Your task to perform on an android device: change alarm snooze length Image 0: 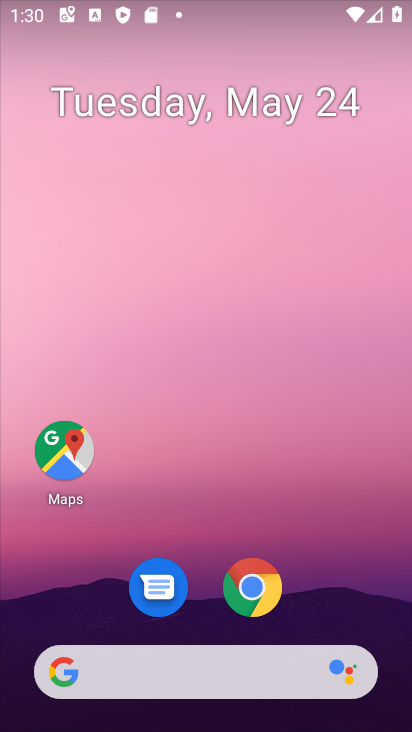
Step 0: drag from (152, 727) to (142, 39)
Your task to perform on an android device: change alarm snooze length Image 1: 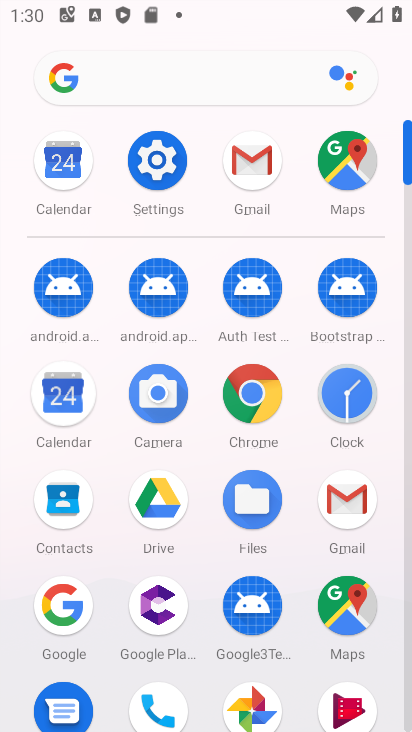
Step 1: click (347, 410)
Your task to perform on an android device: change alarm snooze length Image 2: 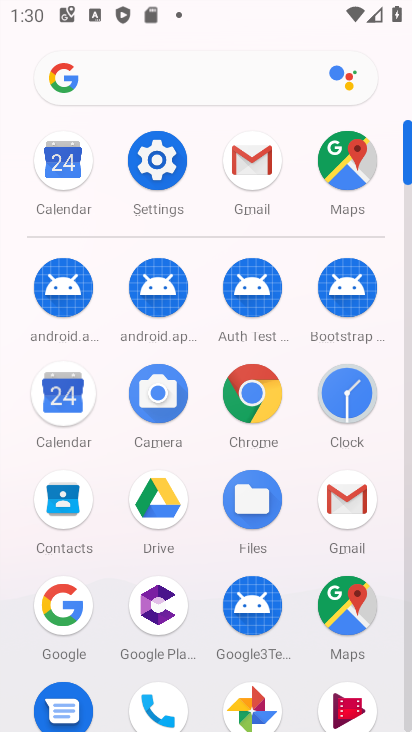
Step 2: click (347, 410)
Your task to perform on an android device: change alarm snooze length Image 3: 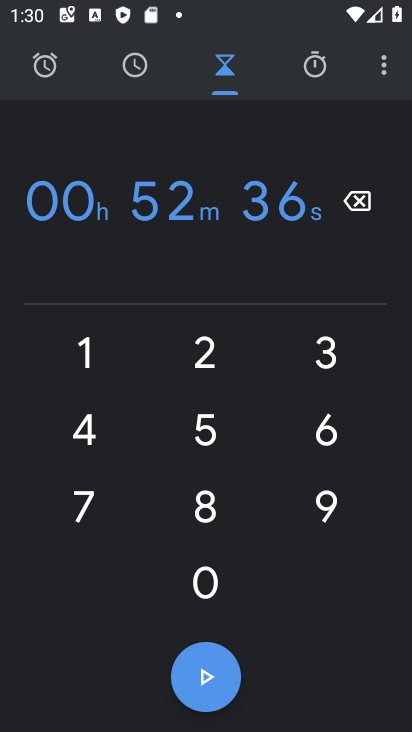
Step 3: click (393, 70)
Your task to perform on an android device: change alarm snooze length Image 4: 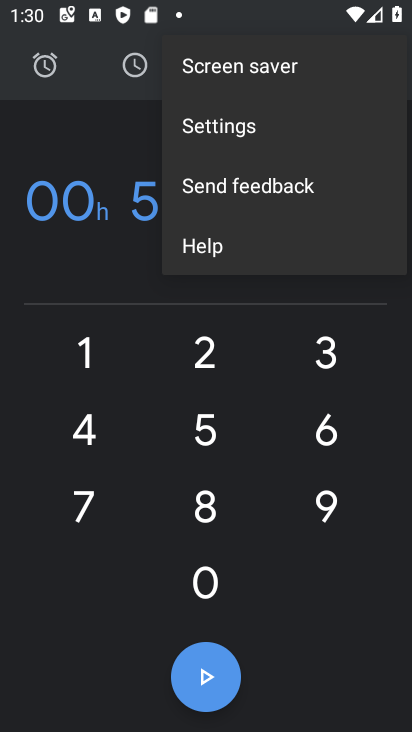
Step 4: click (315, 143)
Your task to perform on an android device: change alarm snooze length Image 5: 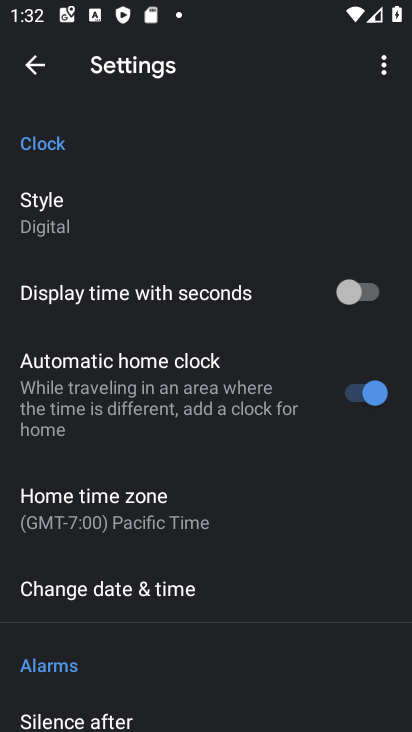
Step 5: drag from (145, 603) to (119, 76)
Your task to perform on an android device: change alarm snooze length Image 6: 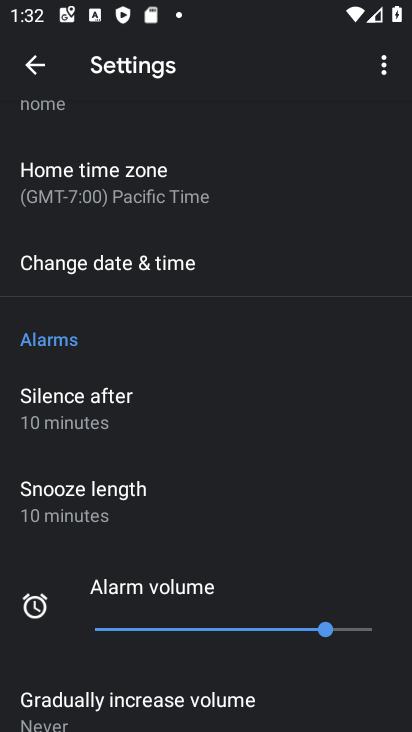
Step 6: click (122, 486)
Your task to perform on an android device: change alarm snooze length Image 7: 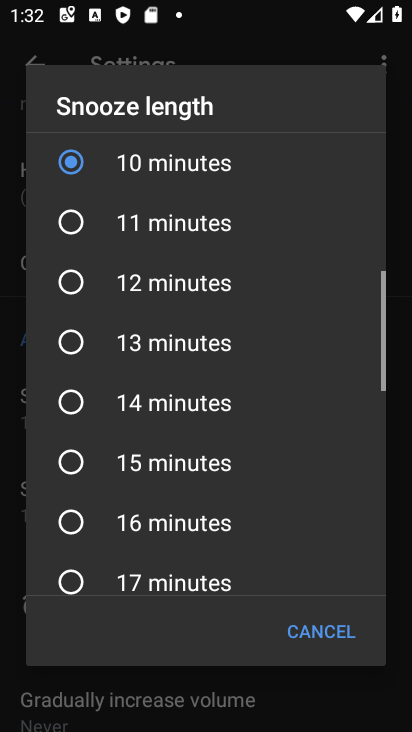
Step 7: click (174, 460)
Your task to perform on an android device: change alarm snooze length Image 8: 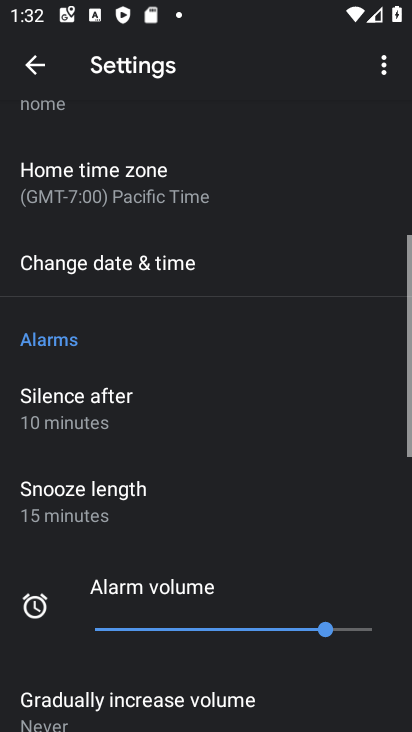
Step 8: task complete